Your task to perform on an android device: toggle wifi Image 0: 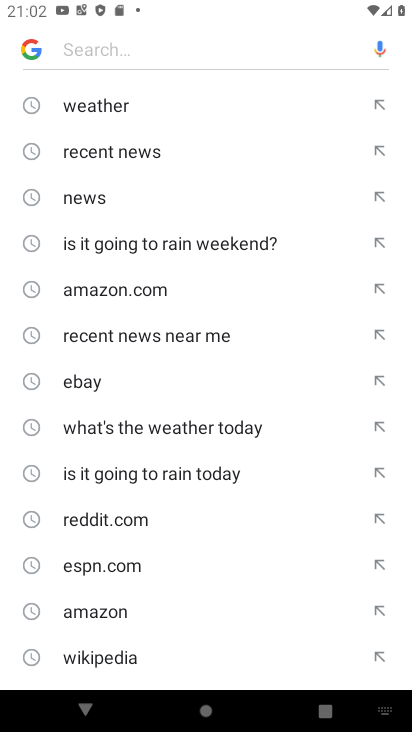
Step 0: press home button
Your task to perform on an android device: toggle wifi Image 1: 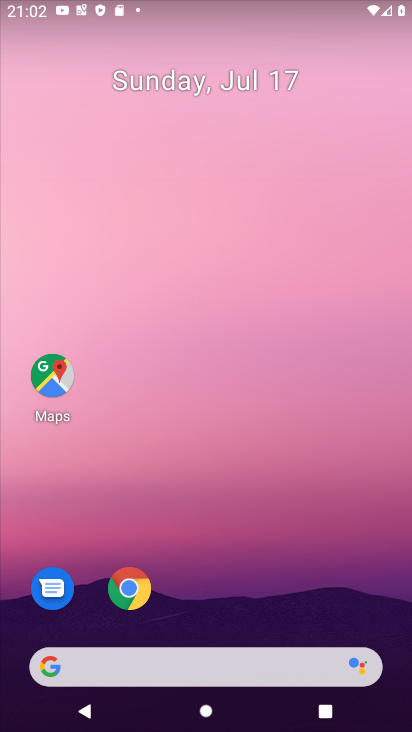
Step 1: drag from (316, 13) to (269, 482)
Your task to perform on an android device: toggle wifi Image 2: 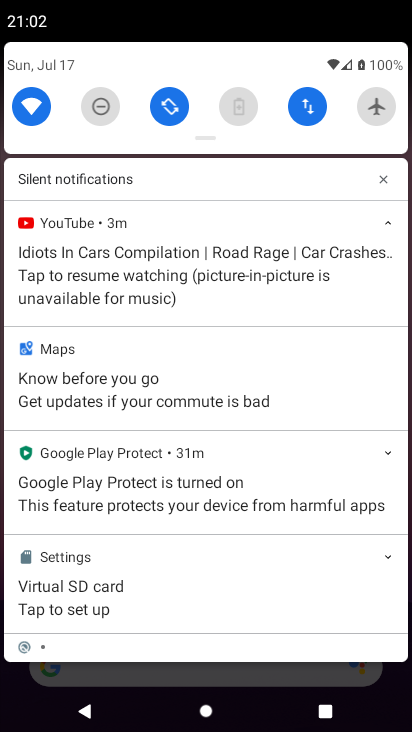
Step 2: click (29, 124)
Your task to perform on an android device: toggle wifi Image 3: 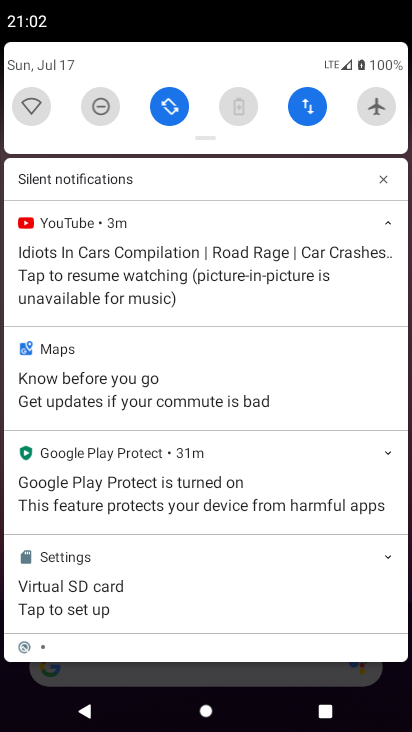
Step 3: task complete